Your task to perform on an android device: choose inbox layout in the gmail app Image 0: 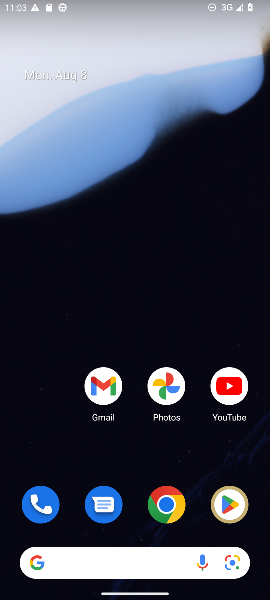
Step 0: drag from (134, 451) to (176, 11)
Your task to perform on an android device: choose inbox layout in the gmail app Image 1: 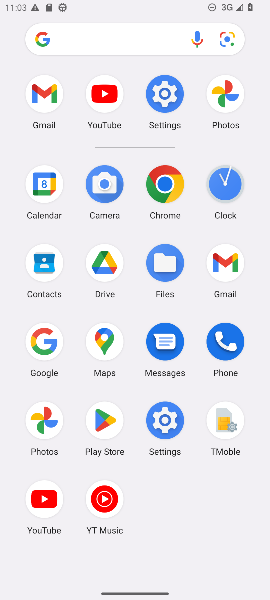
Step 1: click (231, 266)
Your task to perform on an android device: choose inbox layout in the gmail app Image 2: 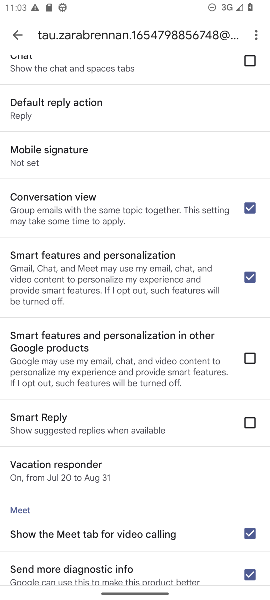
Step 2: drag from (77, 108) to (99, 590)
Your task to perform on an android device: choose inbox layout in the gmail app Image 3: 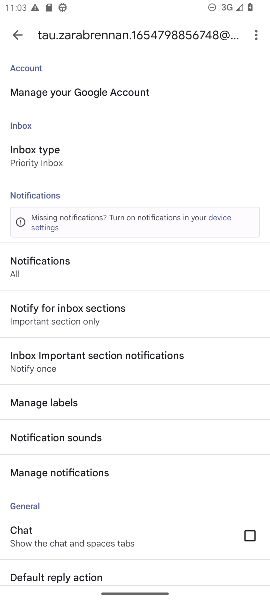
Step 3: click (50, 146)
Your task to perform on an android device: choose inbox layout in the gmail app Image 4: 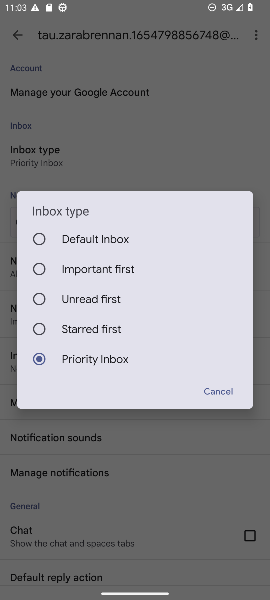
Step 4: click (73, 232)
Your task to perform on an android device: choose inbox layout in the gmail app Image 5: 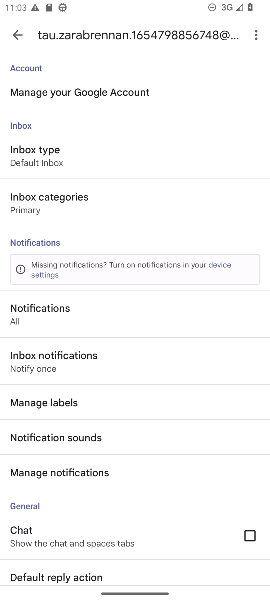
Step 5: task complete